Your task to perform on an android device: set an alarm Image 0: 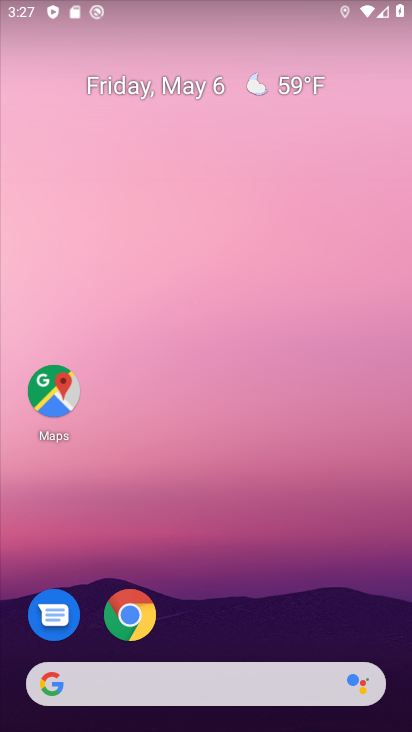
Step 0: drag from (342, 634) to (372, 4)
Your task to perform on an android device: set an alarm Image 1: 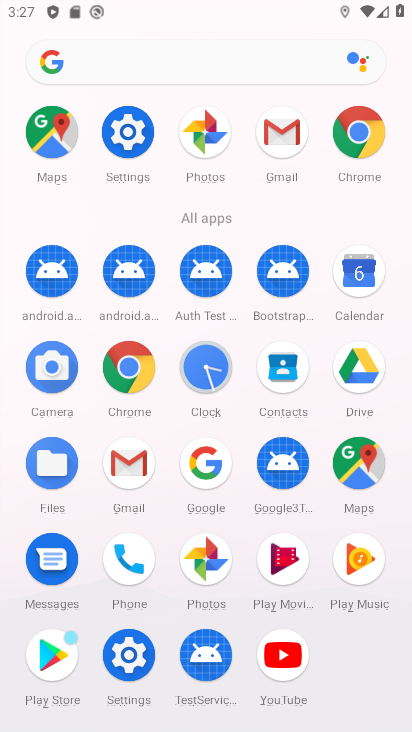
Step 1: click (206, 370)
Your task to perform on an android device: set an alarm Image 2: 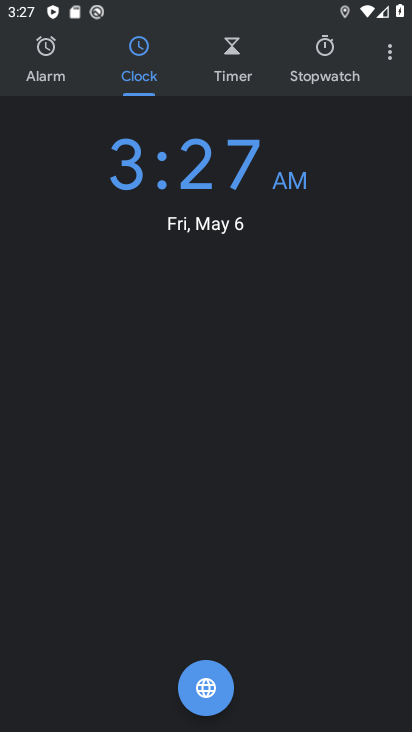
Step 2: click (51, 63)
Your task to perform on an android device: set an alarm Image 3: 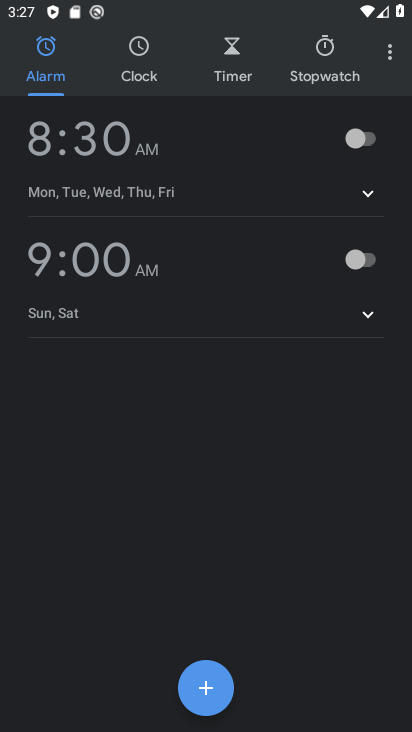
Step 3: click (205, 692)
Your task to perform on an android device: set an alarm Image 4: 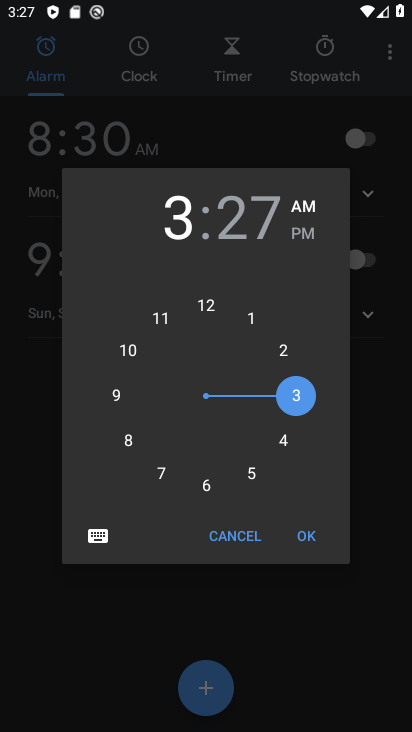
Step 4: click (206, 483)
Your task to perform on an android device: set an alarm Image 5: 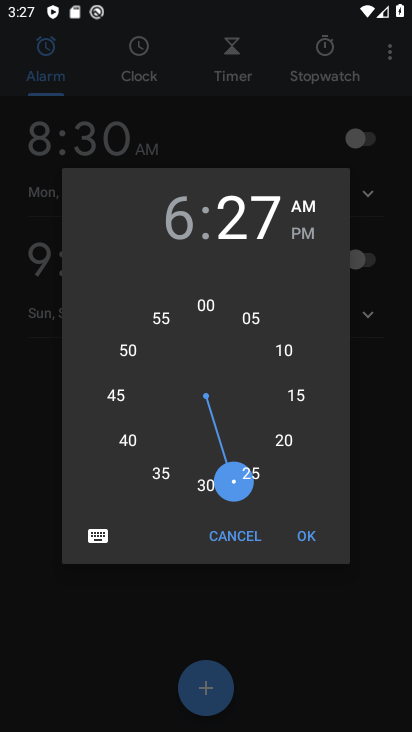
Step 5: click (210, 312)
Your task to perform on an android device: set an alarm Image 6: 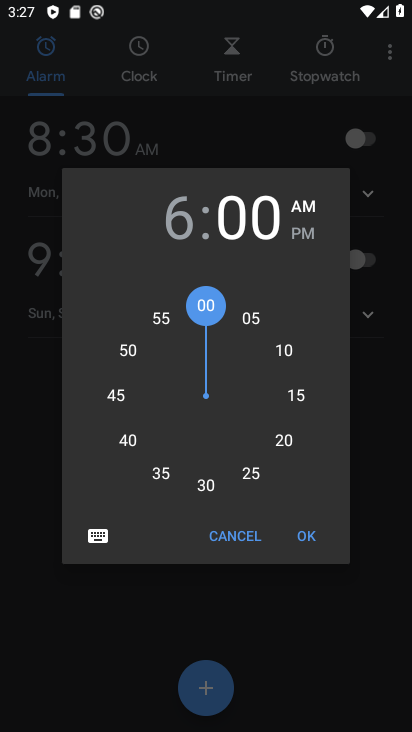
Step 6: click (317, 543)
Your task to perform on an android device: set an alarm Image 7: 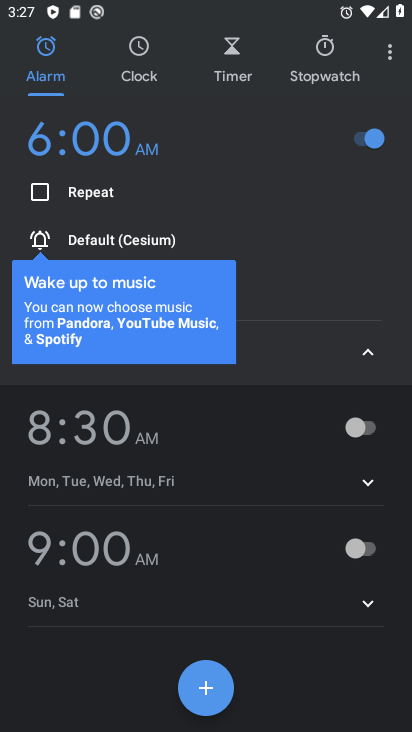
Step 7: task complete